Your task to perform on an android device: Turn on the flashlight Image 0: 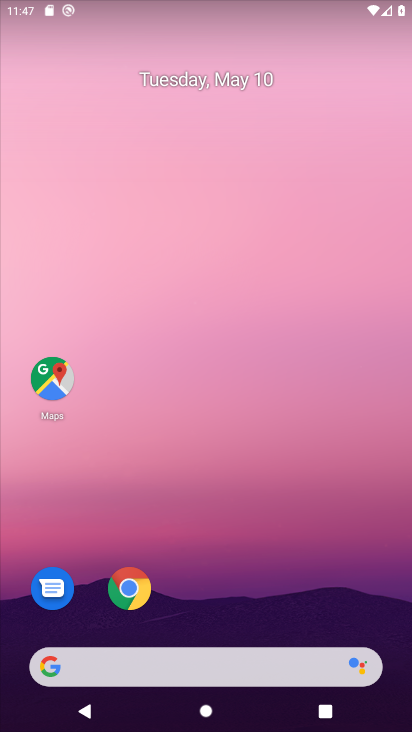
Step 0: drag from (236, 5) to (276, 412)
Your task to perform on an android device: Turn on the flashlight Image 1: 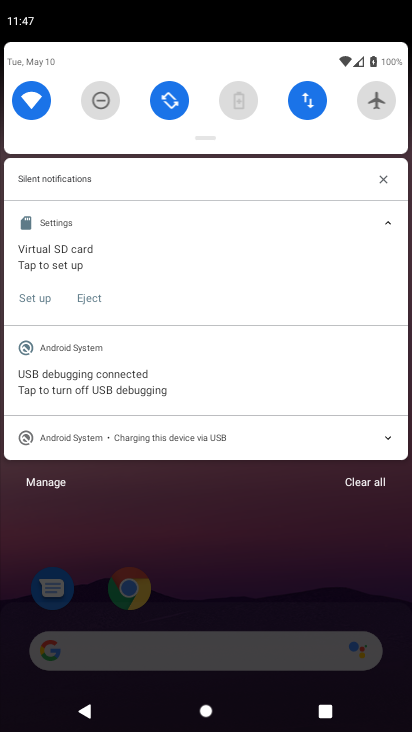
Step 1: drag from (238, 130) to (233, 502)
Your task to perform on an android device: Turn on the flashlight Image 2: 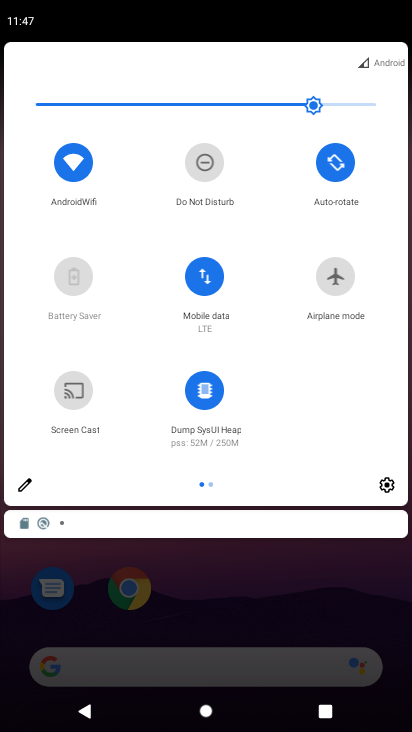
Step 2: drag from (310, 387) to (32, 362)
Your task to perform on an android device: Turn on the flashlight Image 3: 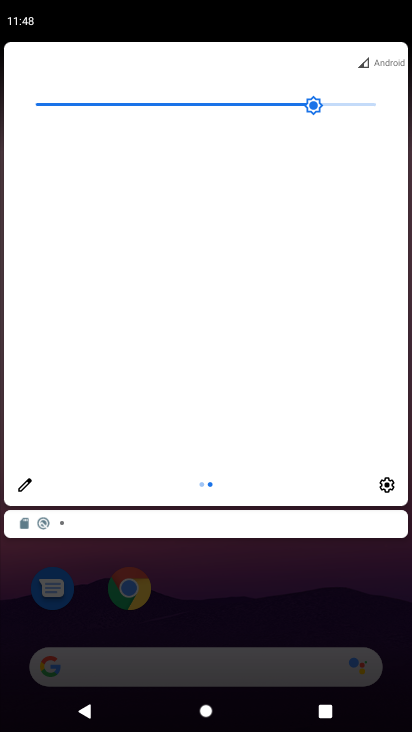
Step 3: click (23, 482)
Your task to perform on an android device: Turn on the flashlight Image 4: 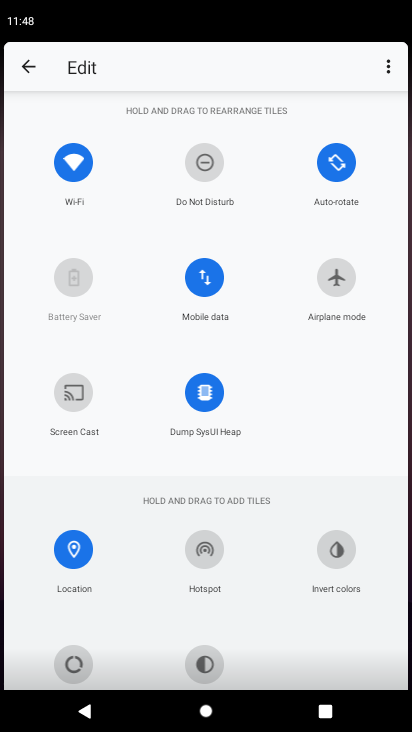
Step 4: task complete